Your task to perform on an android device: check battery use Image 0: 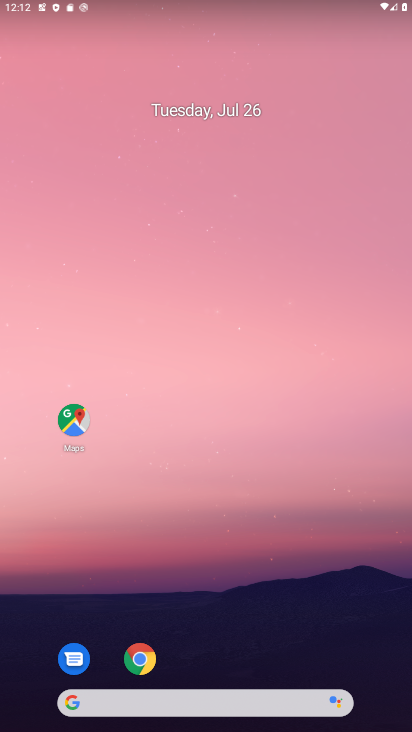
Step 0: drag from (201, 682) to (215, 335)
Your task to perform on an android device: check battery use Image 1: 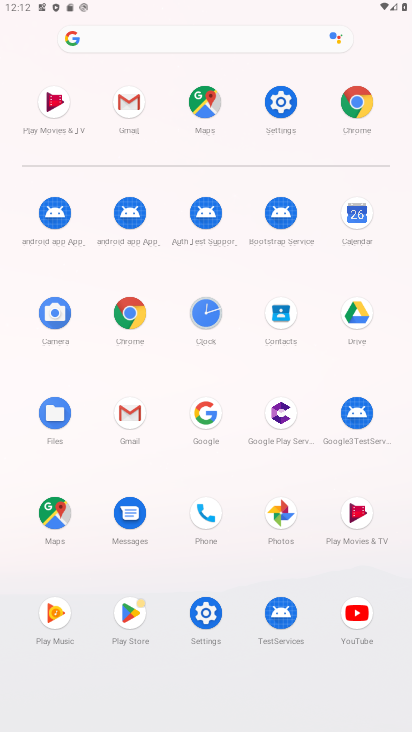
Step 1: click (281, 109)
Your task to perform on an android device: check battery use Image 2: 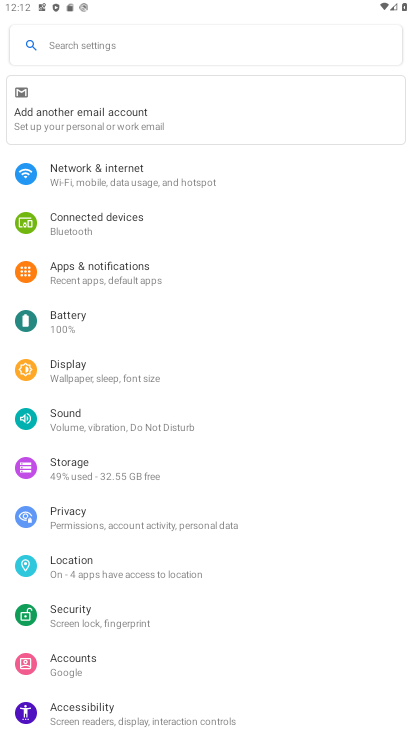
Step 2: click (83, 331)
Your task to perform on an android device: check battery use Image 3: 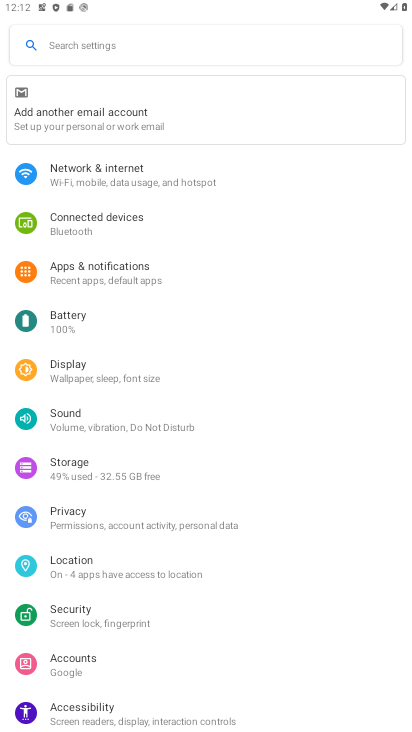
Step 3: click (85, 328)
Your task to perform on an android device: check battery use Image 4: 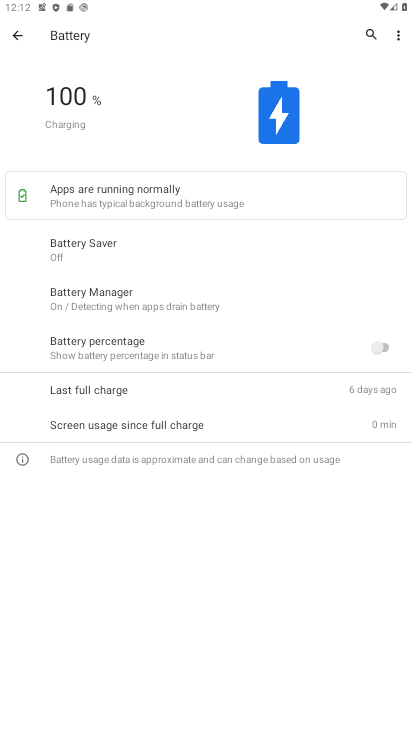
Step 4: drag from (168, 396) to (196, 294)
Your task to perform on an android device: check battery use Image 5: 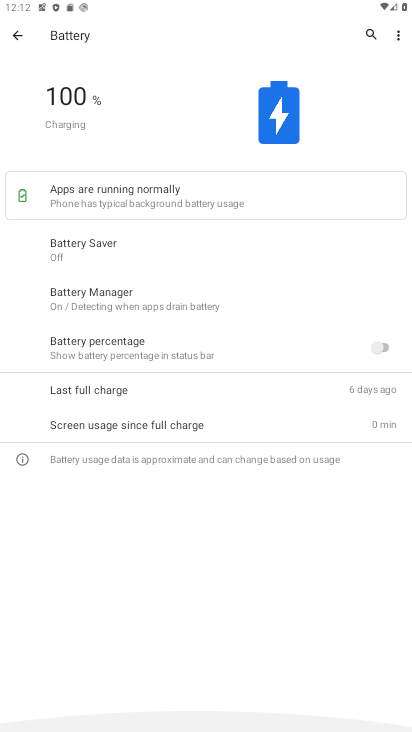
Step 5: click (310, 572)
Your task to perform on an android device: check battery use Image 6: 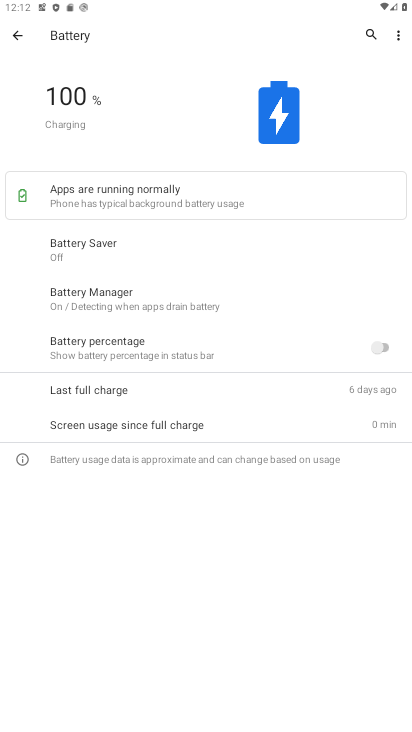
Step 6: click (393, 28)
Your task to perform on an android device: check battery use Image 7: 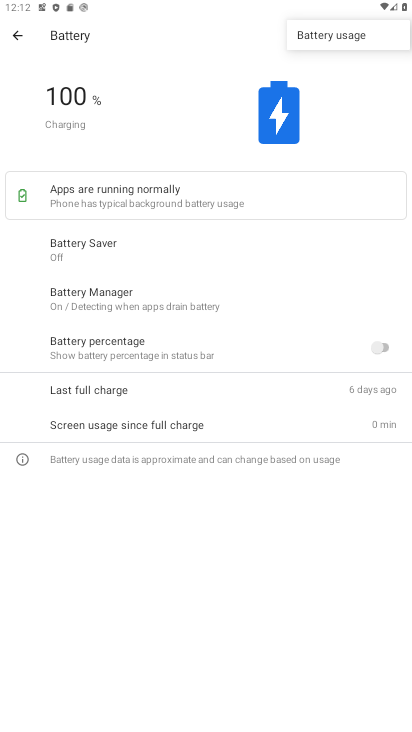
Step 7: click (354, 38)
Your task to perform on an android device: check battery use Image 8: 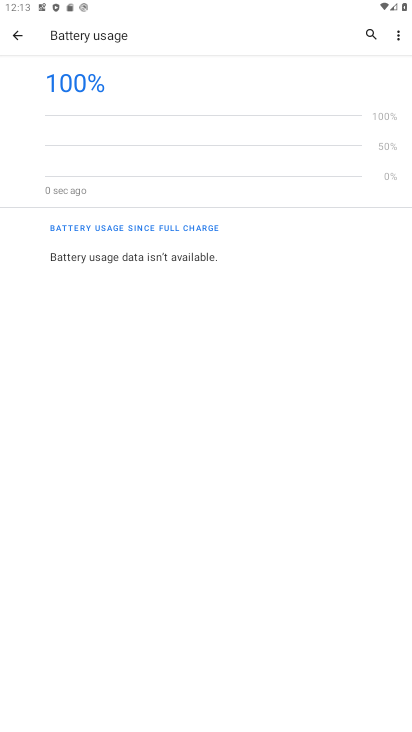
Step 8: task complete